Your task to perform on an android device: turn off smart reply in the gmail app Image 0: 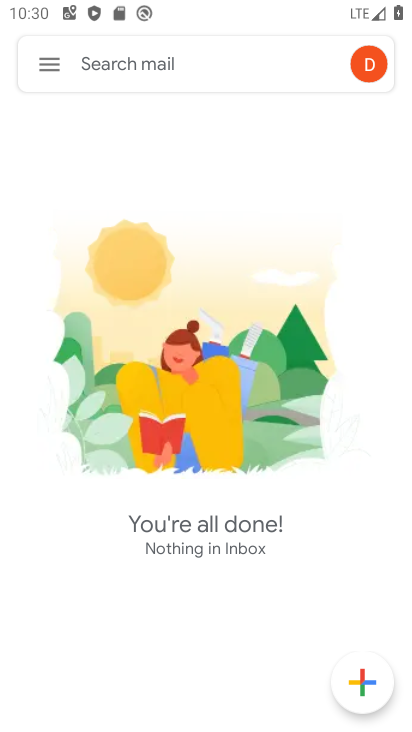
Step 0: press home button
Your task to perform on an android device: turn off smart reply in the gmail app Image 1: 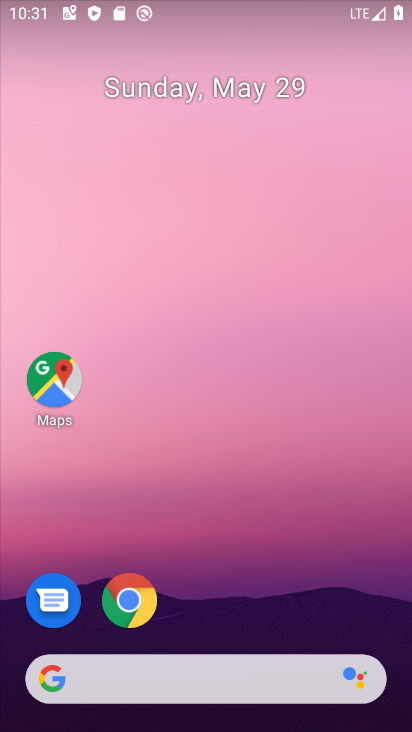
Step 1: drag from (280, 284) to (286, 47)
Your task to perform on an android device: turn off smart reply in the gmail app Image 2: 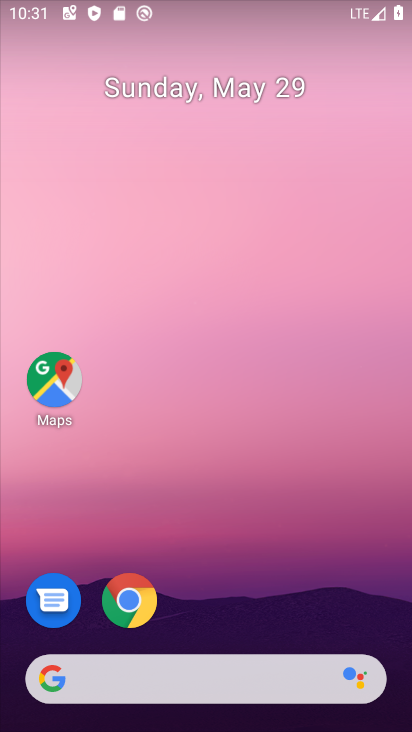
Step 2: drag from (280, 603) to (305, 58)
Your task to perform on an android device: turn off smart reply in the gmail app Image 3: 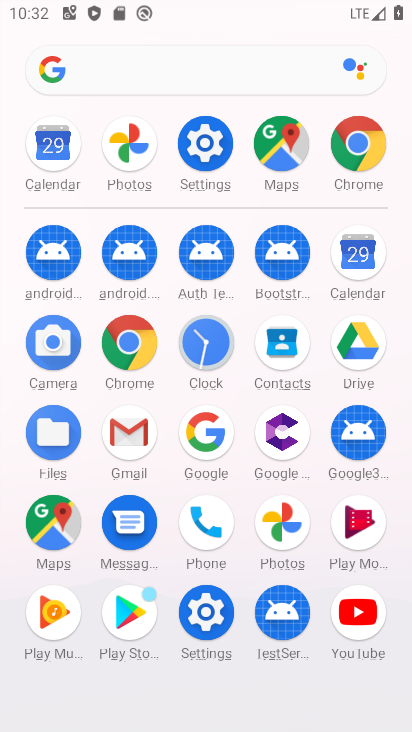
Step 3: click (114, 448)
Your task to perform on an android device: turn off smart reply in the gmail app Image 4: 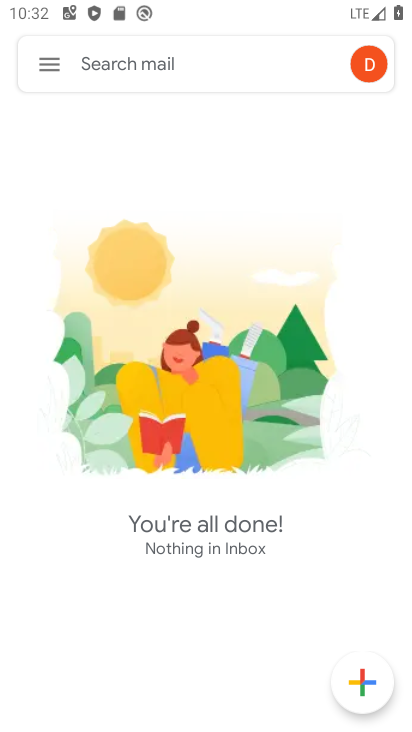
Step 4: click (54, 70)
Your task to perform on an android device: turn off smart reply in the gmail app Image 5: 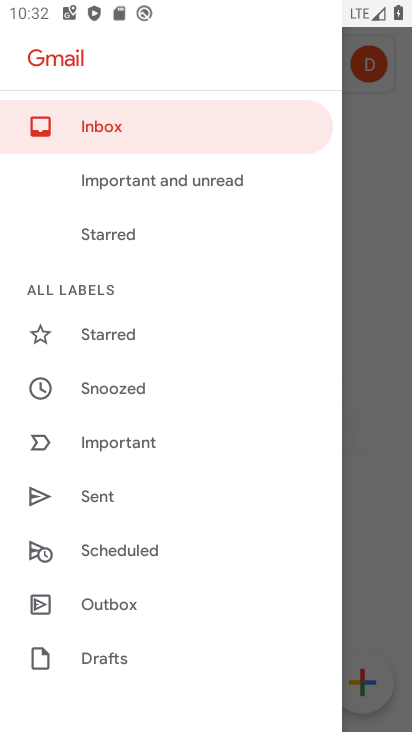
Step 5: drag from (157, 655) to (182, 107)
Your task to perform on an android device: turn off smart reply in the gmail app Image 6: 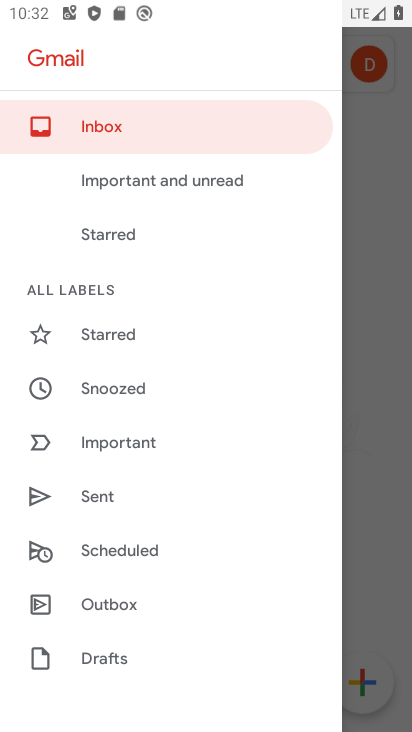
Step 6: drag from (111, 663) to (265, 332)
Your task to perform on an android device: turn off smart reply in the gmail app Image 7: 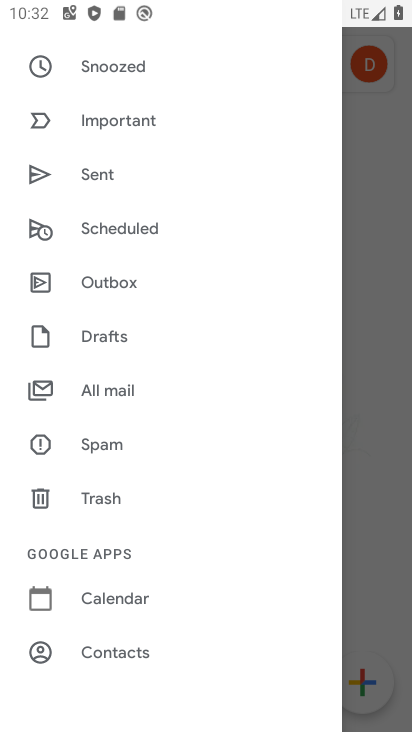
Step 7: drag from (173, 650) to (286, 31)
Your task to perform on an android device: turn off smart reply in the gmail app Image 8: 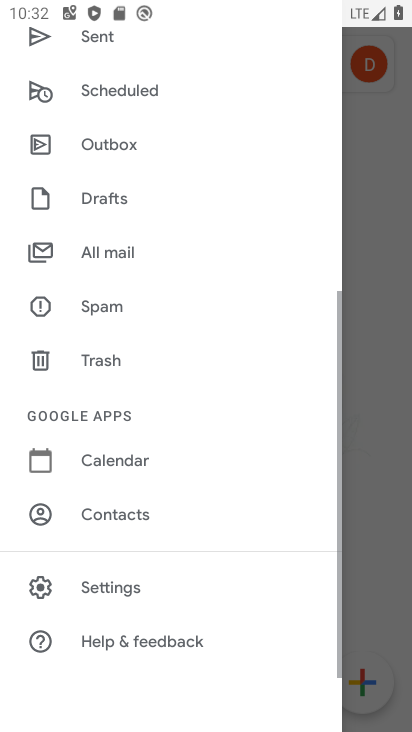
Step 8: click (104, 595)
Your task to perform on an android device: turn off smart reply in the gmail app Image 9: 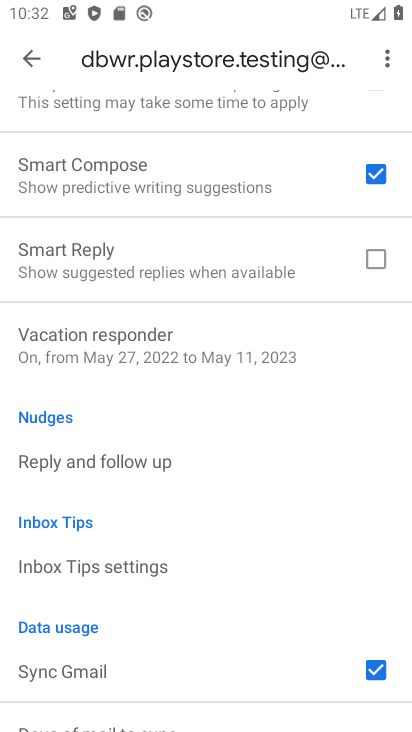
Step 9: task complete